Your task to perform on an android device: uninstall "Lyft - Rideshare, Bikes, Scooters & Transit" Image 0: 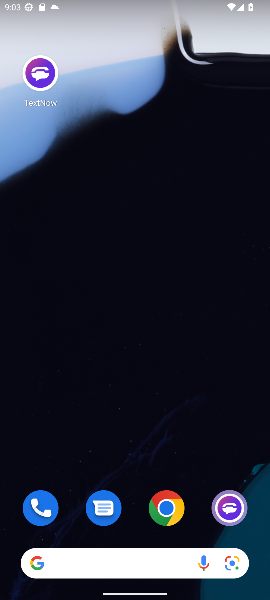
Step 0: drag from (145, 525) to (130, 156)
Your task to perform on an android device: uninstall "Lyft - Rideshare, Bikes, Scooters & Transit" Image 1: 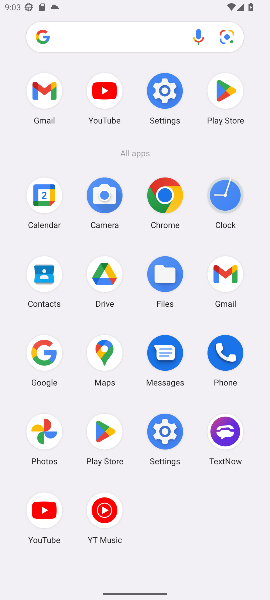
Step 1: click (223, 109)
Your task to perform on an android device: uninstall "Lyft - Rideshare, Bikes, Scooters & Transit" Image 2: 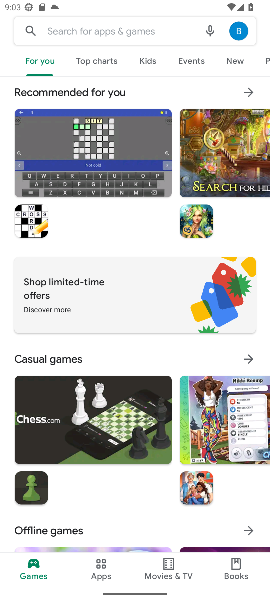
Step 2: click (131, 36)
Your task to perform on an android device: uninstall "Lyft - Rideshare, Bikes, Scooters & Transit" Image 3: 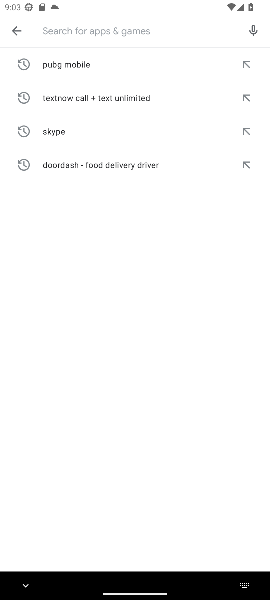
Step 3: type "Lyft - Rideshare, Bikes, Scooters & Transit"
Your task to perform on an android device: uninstall "Lyft - Rideshare, Bikes, Scooters & Transit" Image 4: 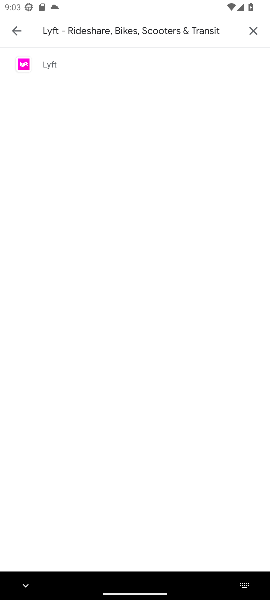
Step 4: click (42, 63)
Your task to perform on an android device: uninstall "Lyft - Rideshare, Bikes, Scooters & Transit" Image 5: 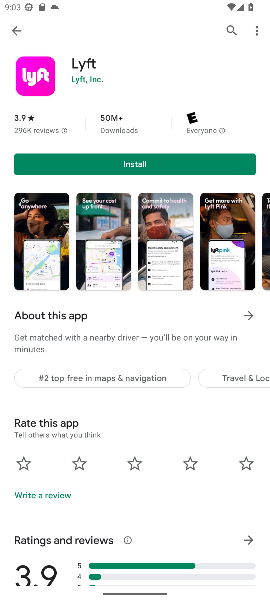
Step 5: task complete